Your task to perform on an android device: Open privacy settings Image 0: 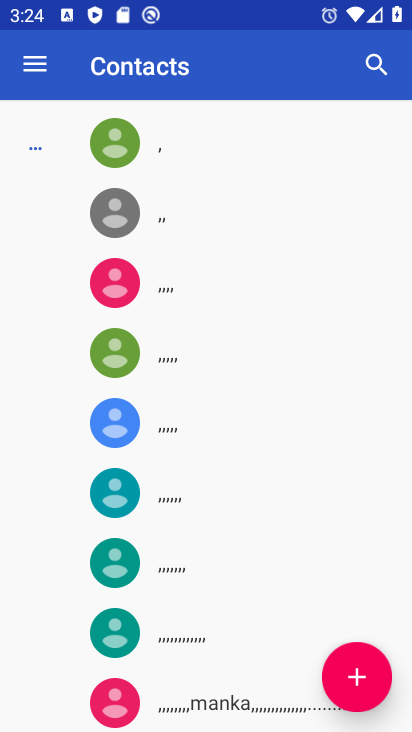
Step 0: drag from (206, 593) to (345, 258)
Your task to perform on an android device: Open privacy settings Image 1: 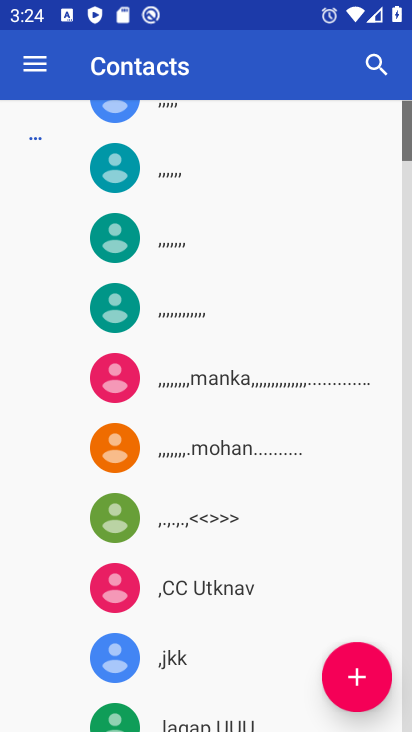
Step 1: press home button
Your task to perform on an android device: Open privacy settings Image 2: 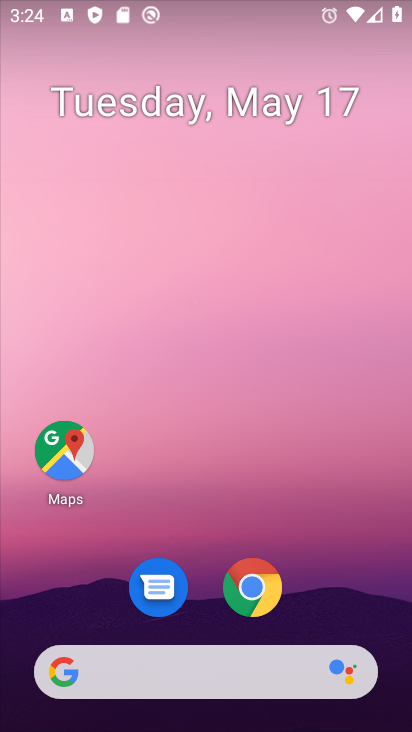
Step 2: drag from (203, 640) to (263, 188)
Your task to perform on an android device: Open privacy settings Image 3: 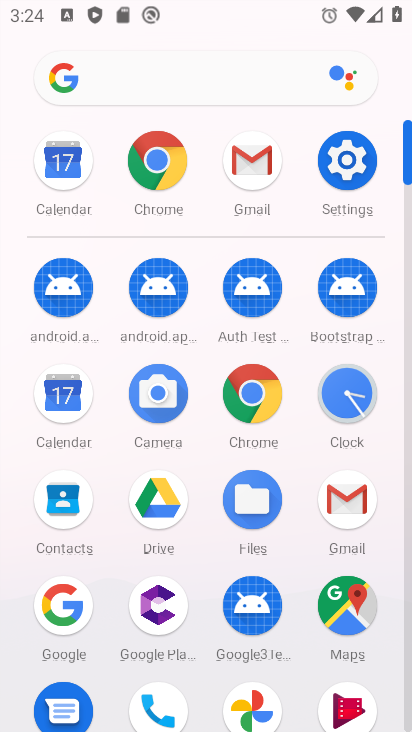
Step 3: click (344, 180)
Your task to perform on an android device: Open privacy settings Image 4: 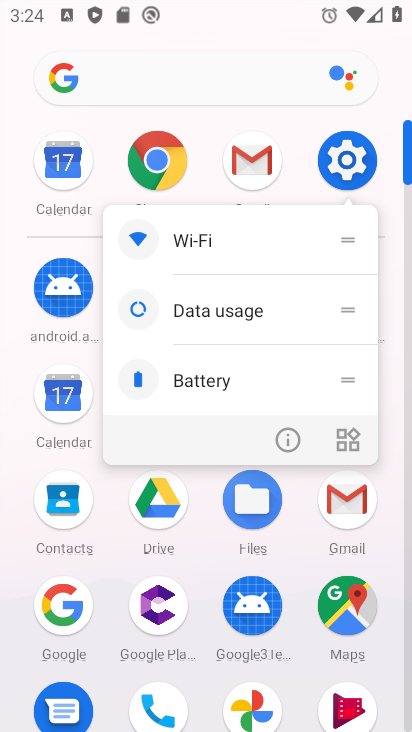
Step 4: click (287, 440)
Your task to perform on an android device: Open privacy settings Image 5: 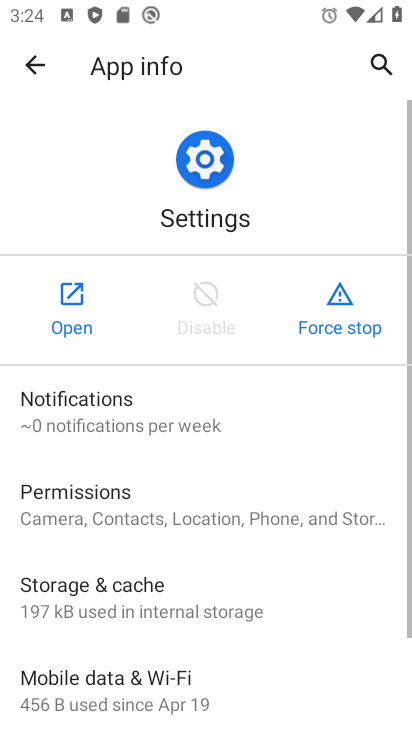
Step 5: click (64, 275)
Your task to perform on an android device: Open privacy settings Image 6: 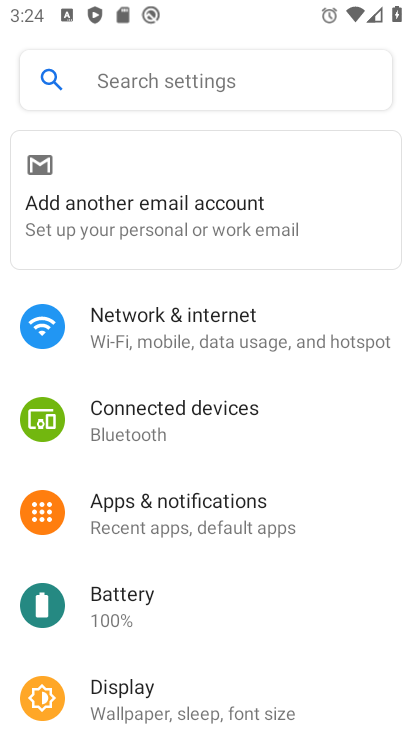
Step 6: drag from (207, 500) to (306, 195)
Your task to perform on an android device: Open privacy settings Image 7: 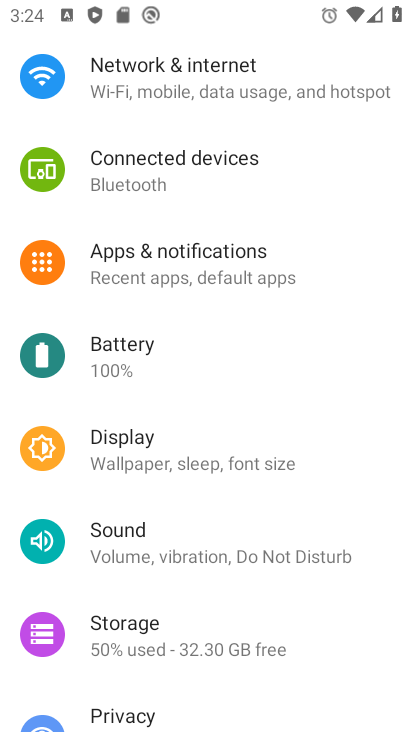
Step 7: click (154, 713)
Your task to perform on an android device: Open privacy settings Image 8: 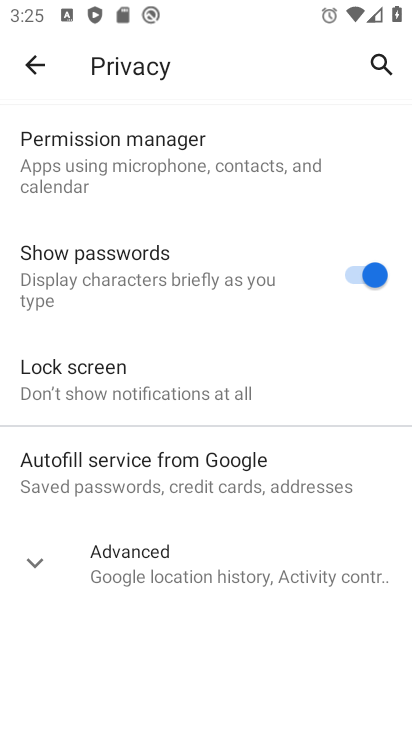
Step 8: click (138, 543)
Your task to perform on an android device: Open privacy settings Image 9: 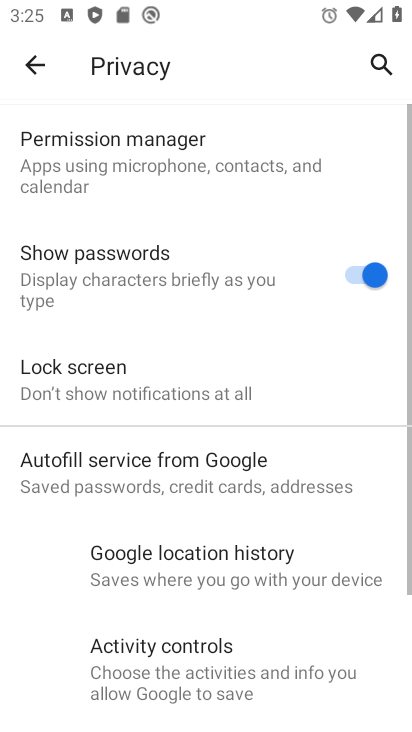
Step 9: task complete